Your task to perform on an android device: uninstall "Microsoft Excel" Image 0: 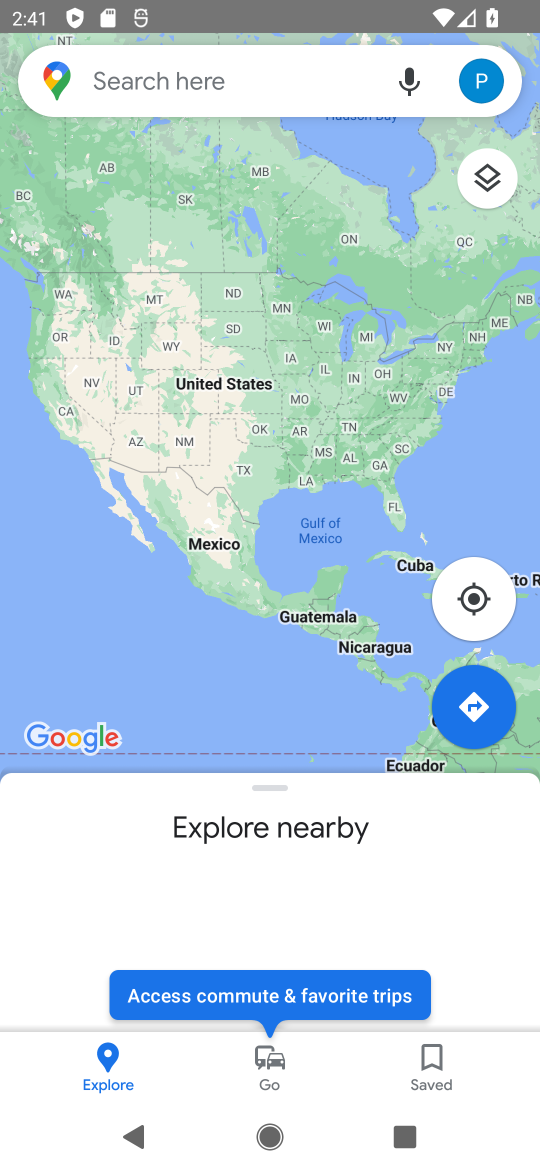
Step 0: press home button
Your task to perform on an android device: uninstall "Microsoft Excel" Image 1: 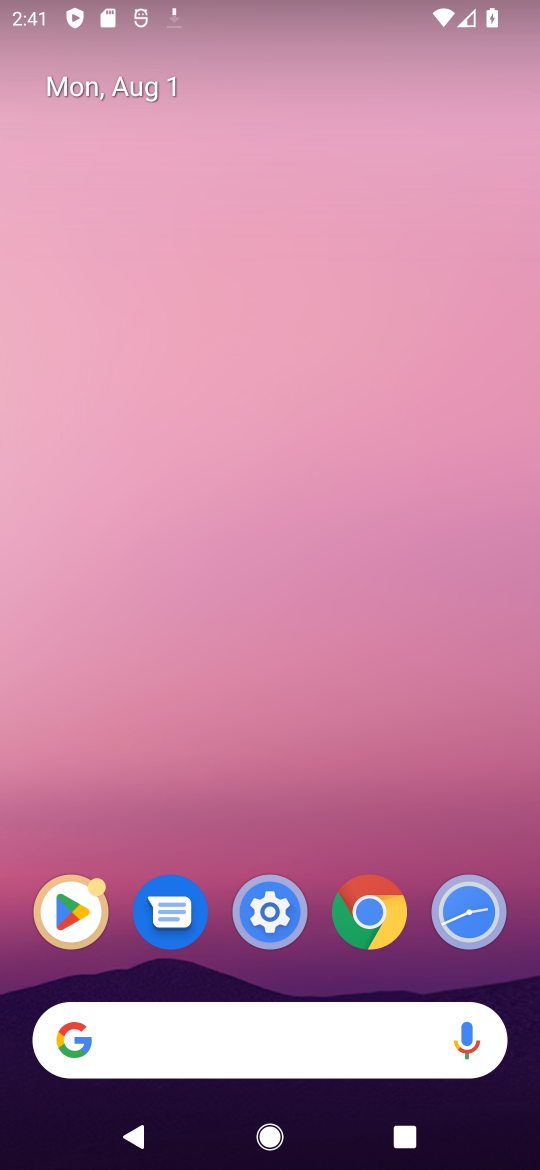
Step 1: click (72, 918)
Your task to perform on an android device: uninstall "Microsoft Excel" Image 2: 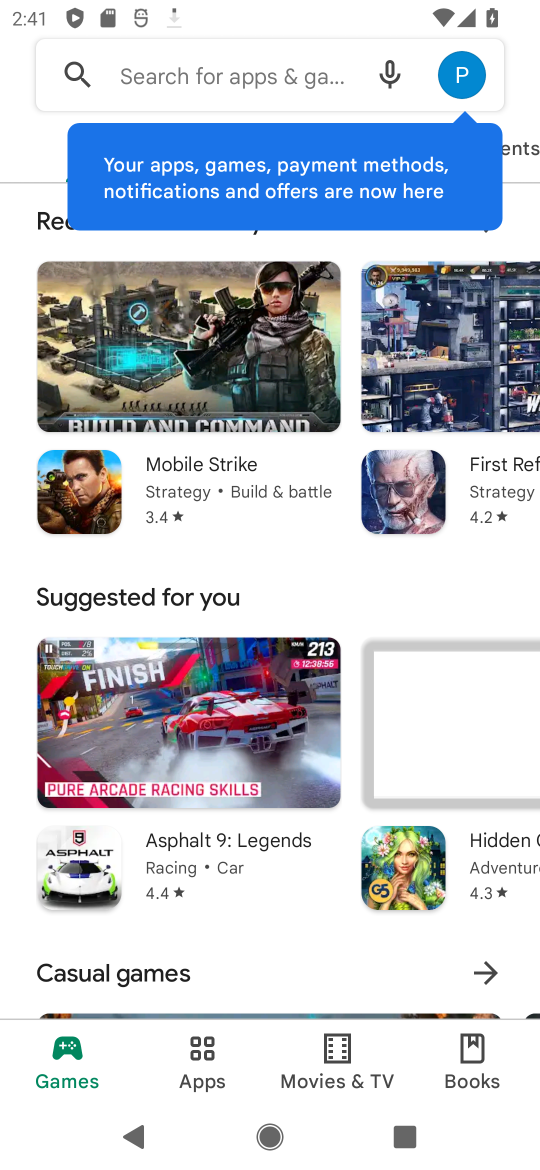
Step 2: click (226, 71)
Your task to perform on an android device: uninstall "Microsoft Excel" Image 3: 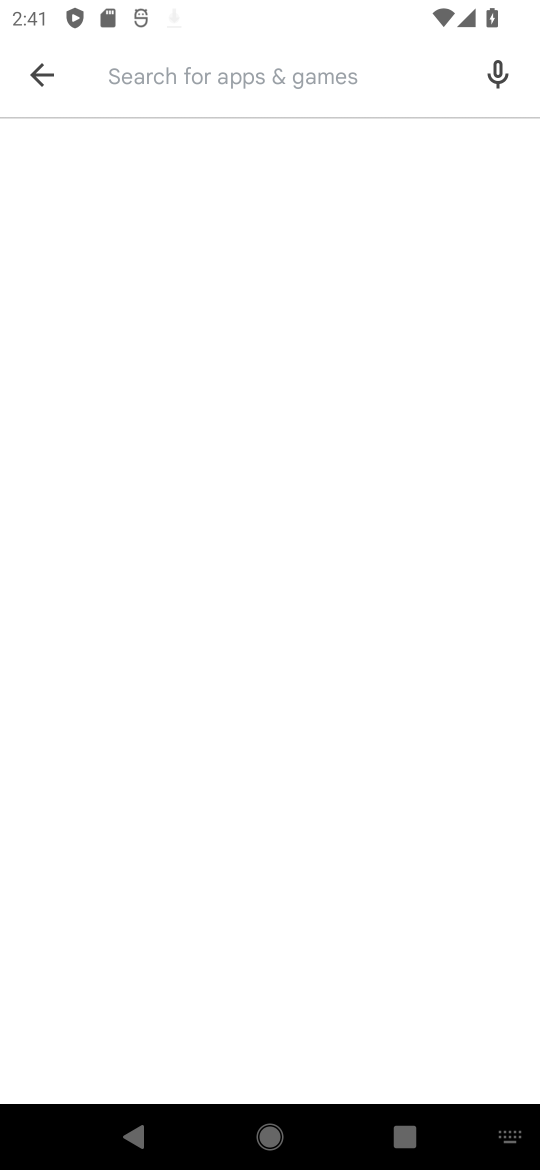
Step 3: type "Microsoft Excel"
Your task to perform on an android device: uninstall "Microsoft Excel" Image 4: 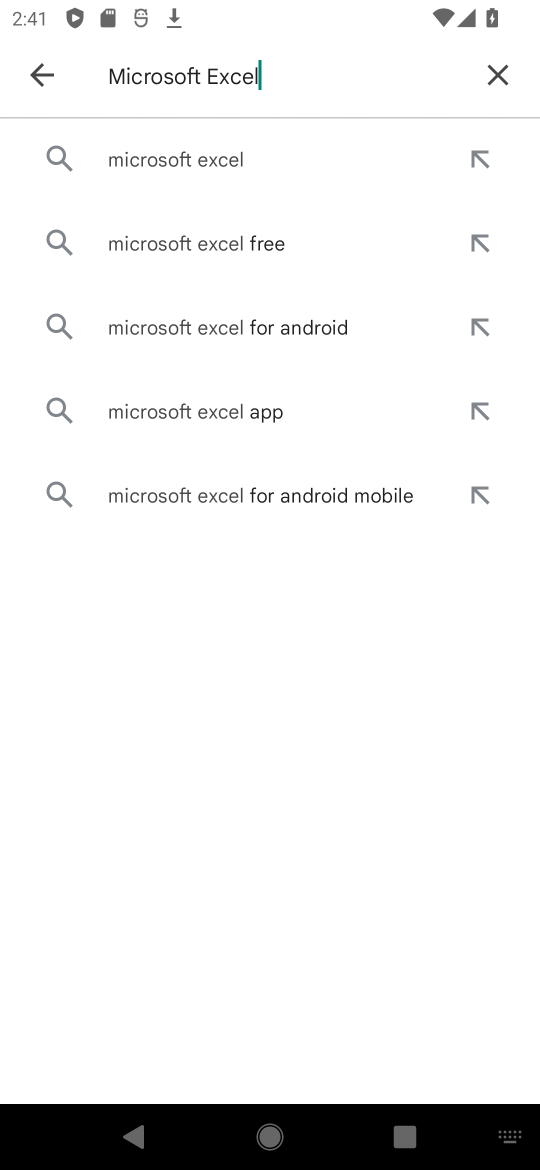
Step 4: click (216, 168)
Your task to perform on an android device: uninstall "Microsoft Excel" Image 5: 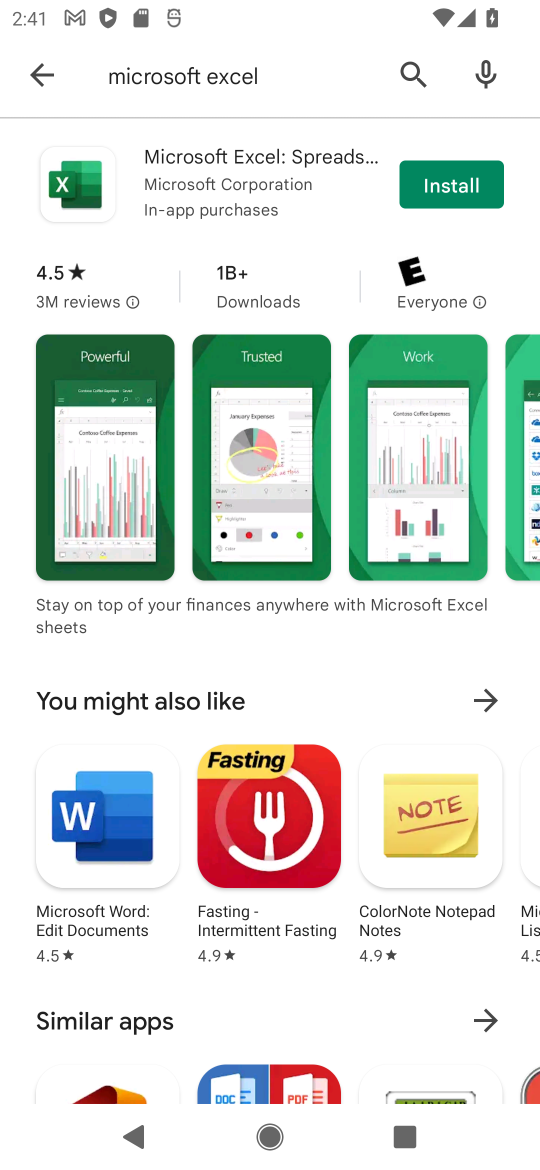
Step 5: task complete